Your task to perform on an android device: toggle pop-ups in chrome Image 0: 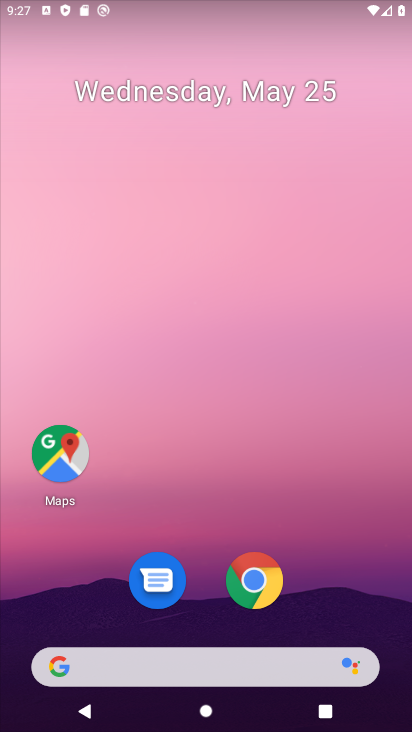
Step 0: click (232, 592)
Your task to perform on an android device: toggle pop-ups in chrome Image 1: 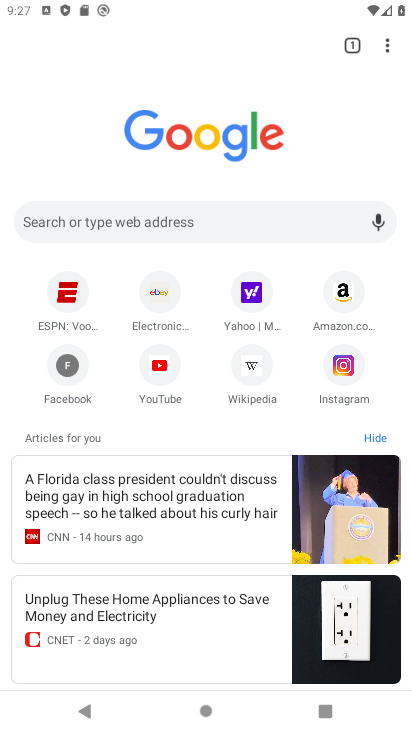
Step 1: click (381, 50)
Your task to perform on an android device: toggle pop-ups in chrome Image 2: 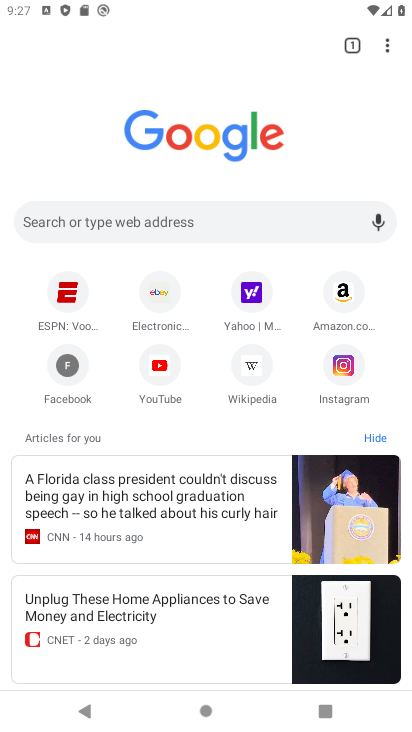
Step 2: click (389, 51)
Your task to perform on an android device: toggle pop-ups in chrome Image 3: 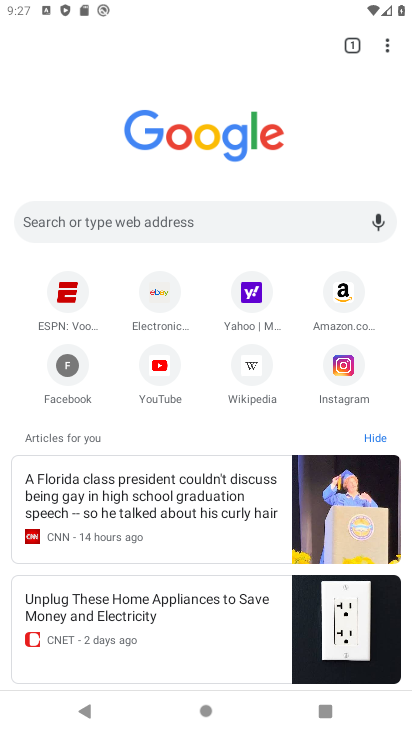
Step 3: click (387, 50)
Your task to perform on an android device: toggle pop-ups in chrome Image 4: 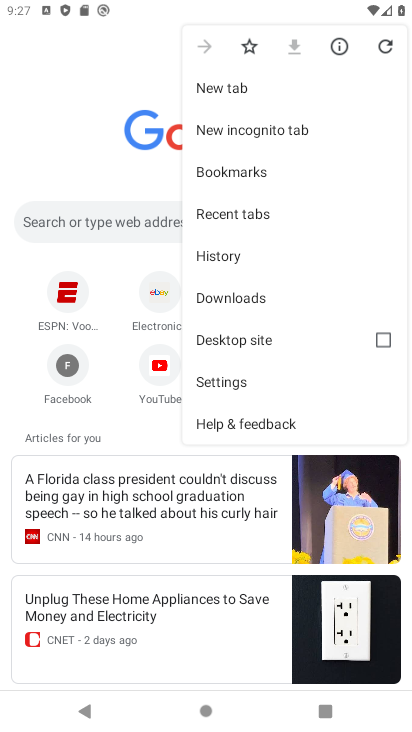
Step 4: click (217, 383)
Your task to perform on an android device: toggle pop-ups in chrome Image 5: 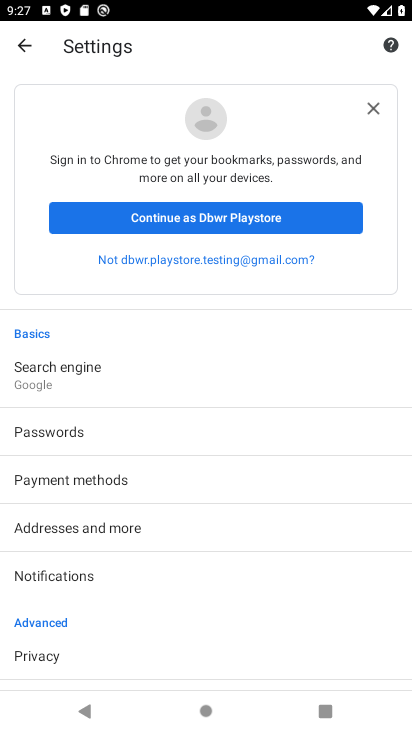
Step 5: drag from (28, 536) to (185, 150)
Your task to perform on an android device: toggle pop-ups in chrome Image 6: 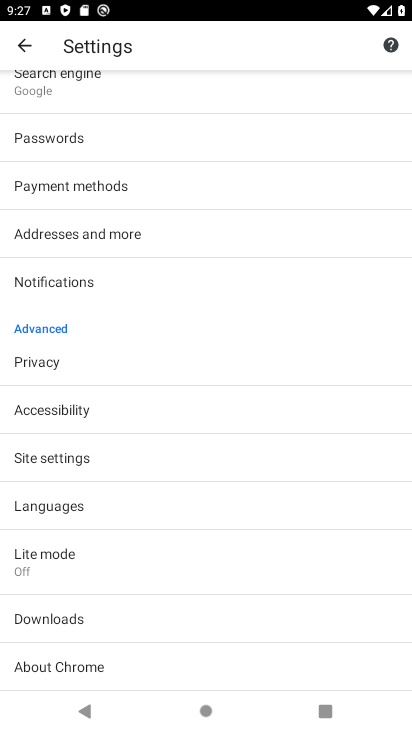
Step 6: drag from (6, 563) to (152, 235)
Your task to perform on an android device: toggle pop-ups in chrome Image 7: 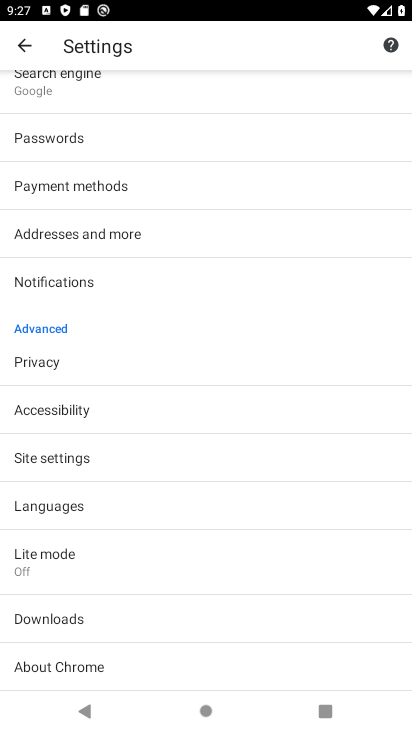
Step 7: click (40, 459)
Your task to perform on an android device: toggle pop-ups in chrome Image 8: 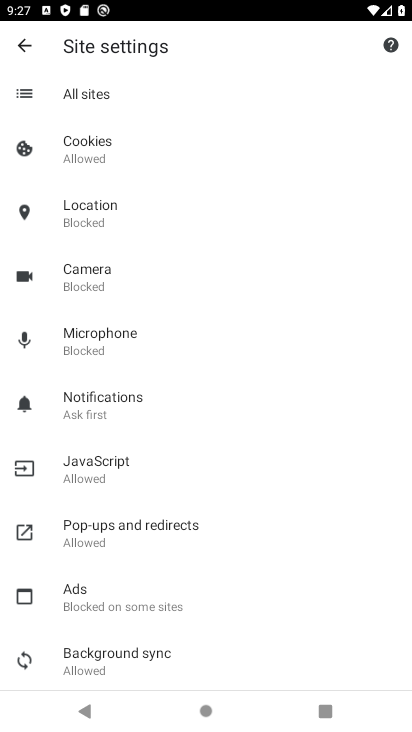
Step 8: click (142, 518)
Your task to perform on an android device: toggle pop-ups in chrome Image 9: 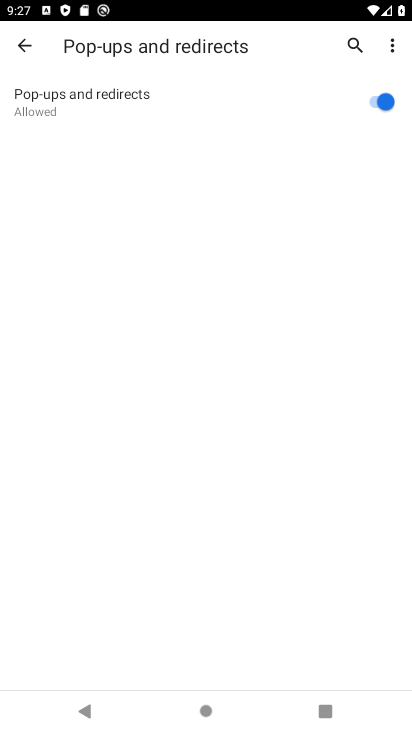
Step 9: click (380, 98)
Your task to perform on an android device: toggle pop-ups in chrome Image 10: 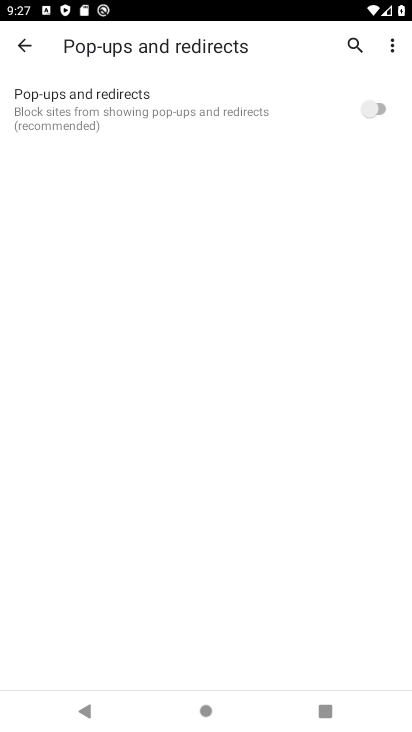
Step 10: task complete